Your task to perform on an android device: Go to wifi settings Image 0: 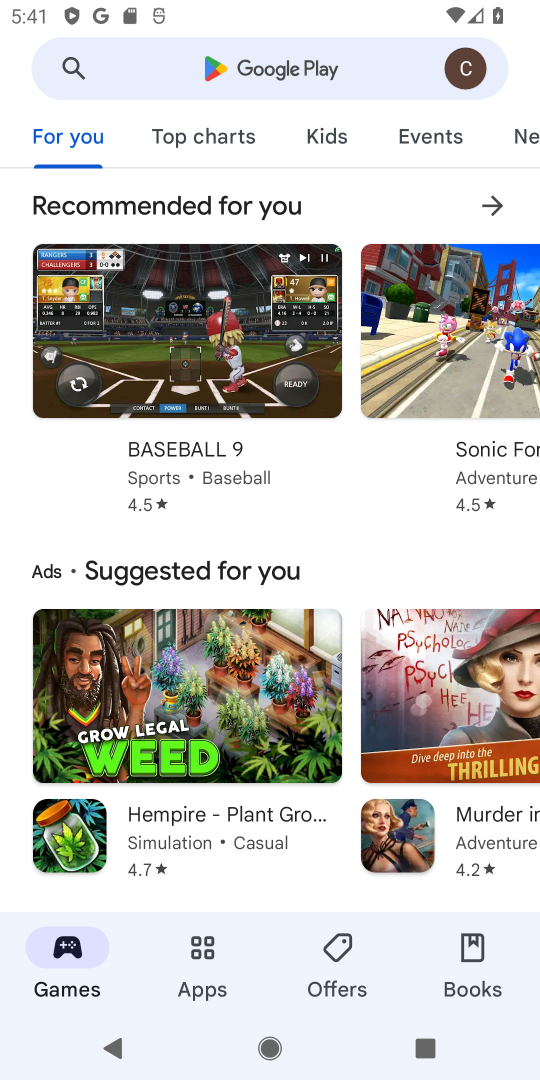
Step 0: press home button
Your task to perform on an android device: Go to wifi settings Image 1: 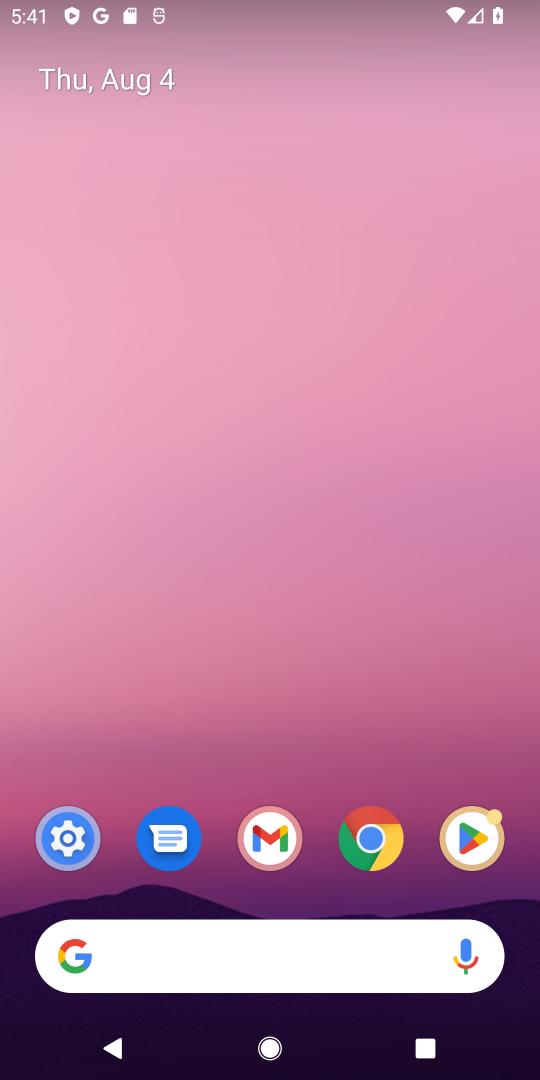
Step 1: drag from (388, 276) to (450, 6)
Your task to perform on an android device: Go to wifi settings Image 2: 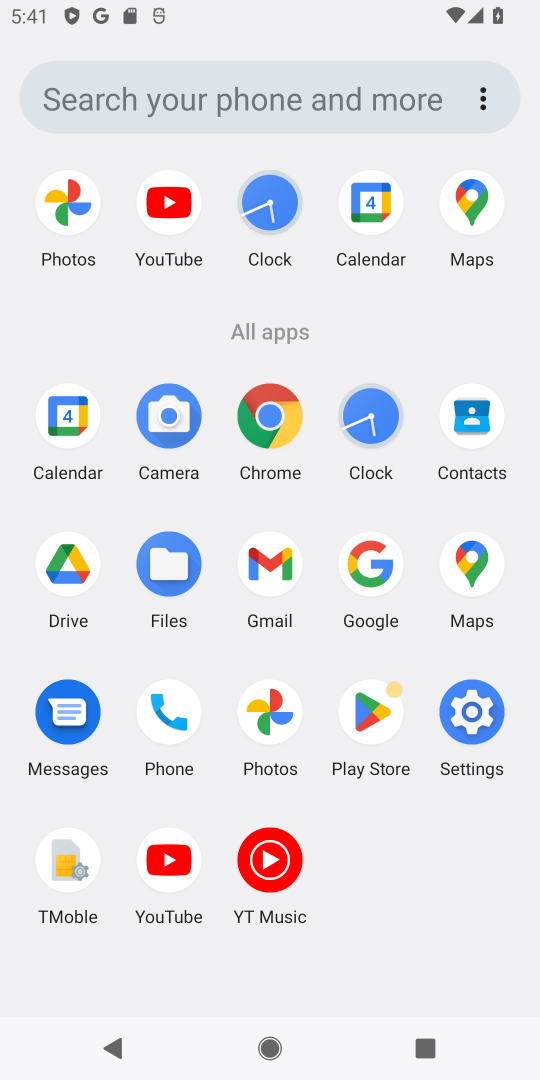
Step 2: click (464, 722)
Your task to perform on an android device: Go to wifi settings Image 3: 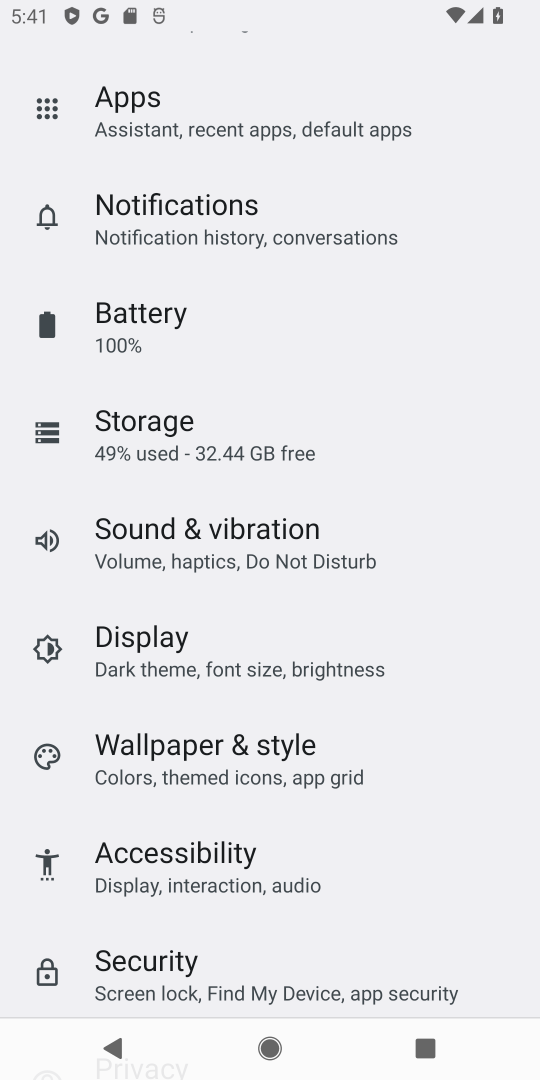
Step 3: drag from (231, 133) to (358, 829)
Your task to perform on an android device: Go to wifi settings Image 4: 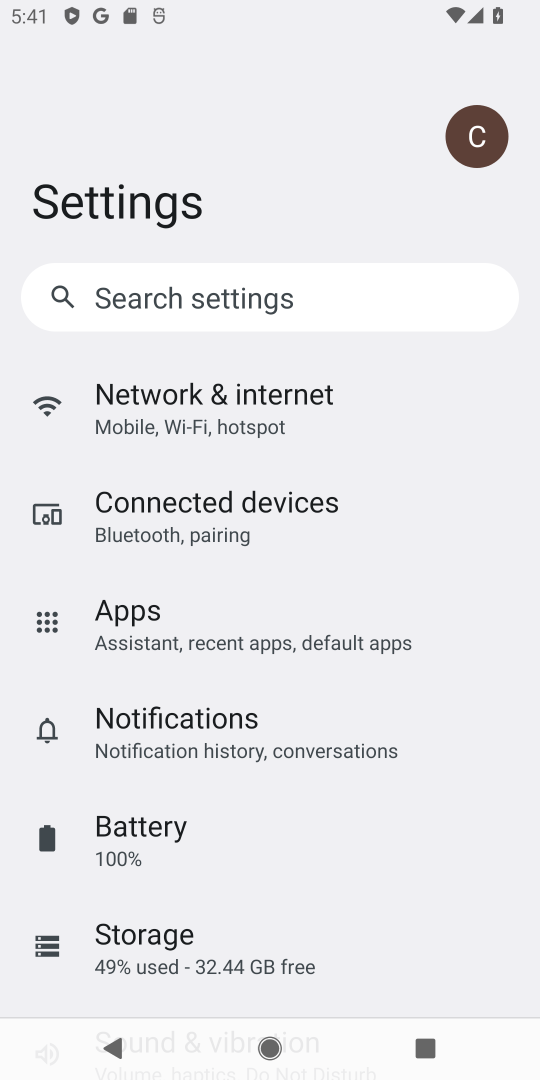
Step 4: click (206, 388)
Your task to perform on an android device: Go to wifi settings Image 5: 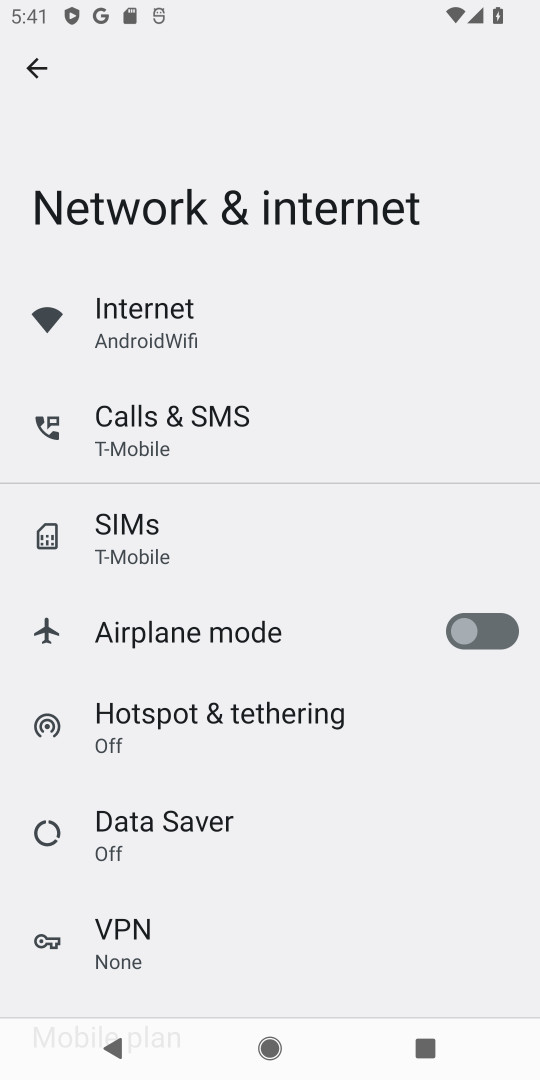
Step 5: click (148, 325)
Your task to perform on an android device: Go to wifi settings Image 6: 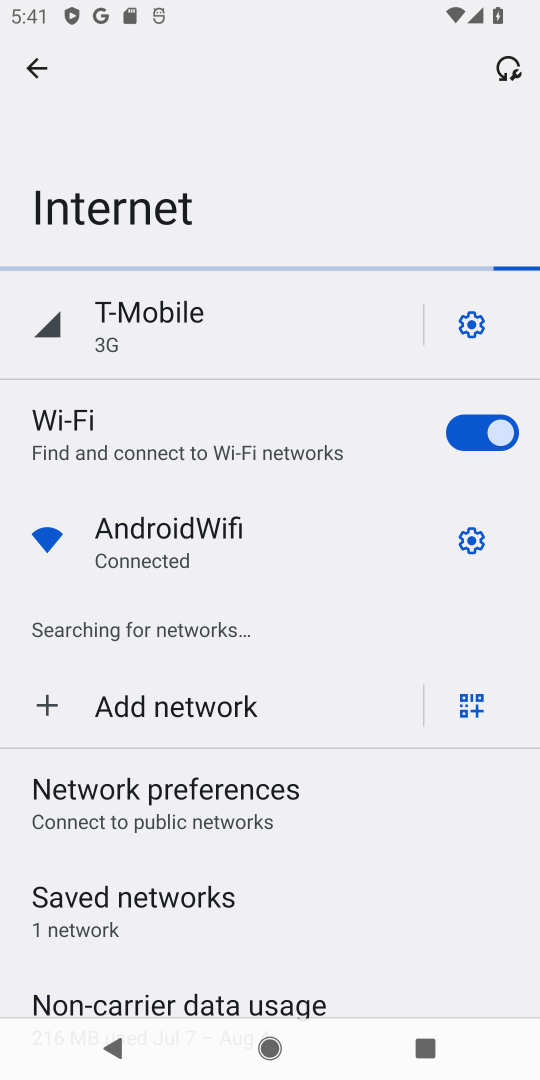
Step 6: click (480, 528)
Your task to perform on an android device: Go to wifi settings Image 7: 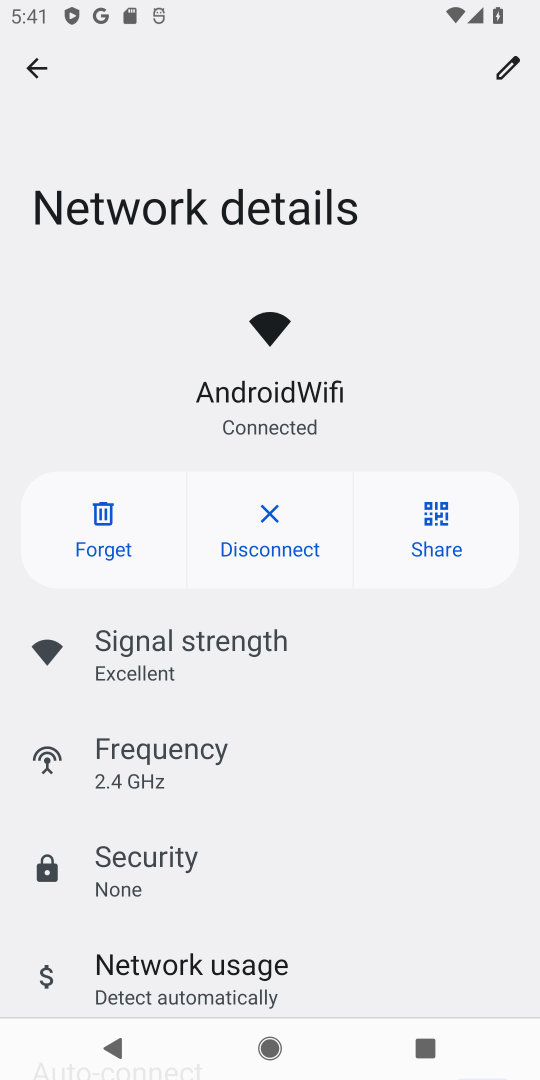
Step 7: task complete